Your task to perform on an android device: Search for pizza restaurants on Maps Image 0: 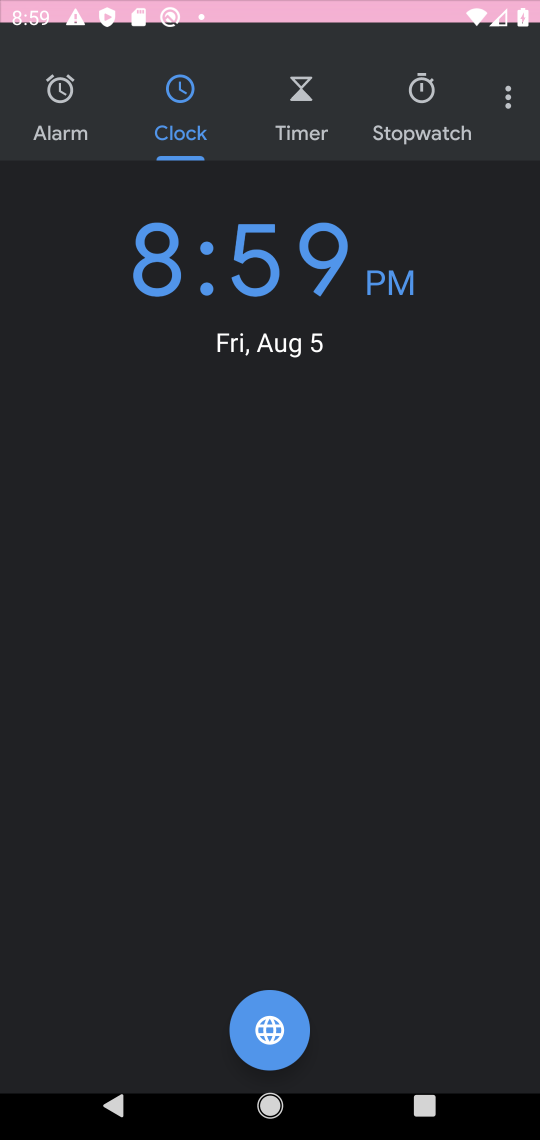
Step 0: press home button
Your task to perform on an android device: Search for pizza restaurants on Maps Image 1: 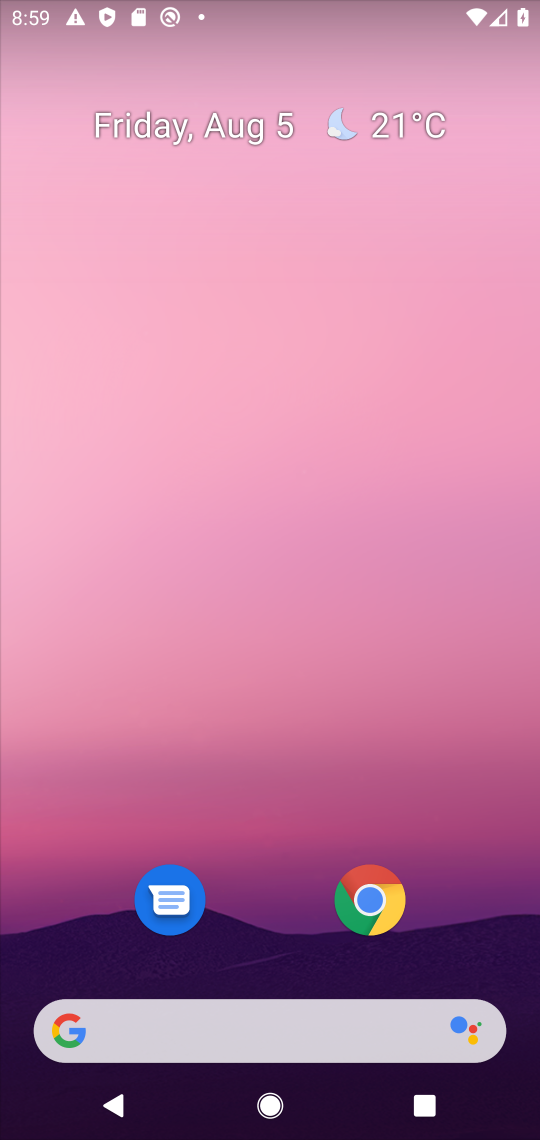
Step 1: drag from (239, 971) to (216, 391)
Your task to perform on an android device: Search for pizza restaurants on Maps Image 2: 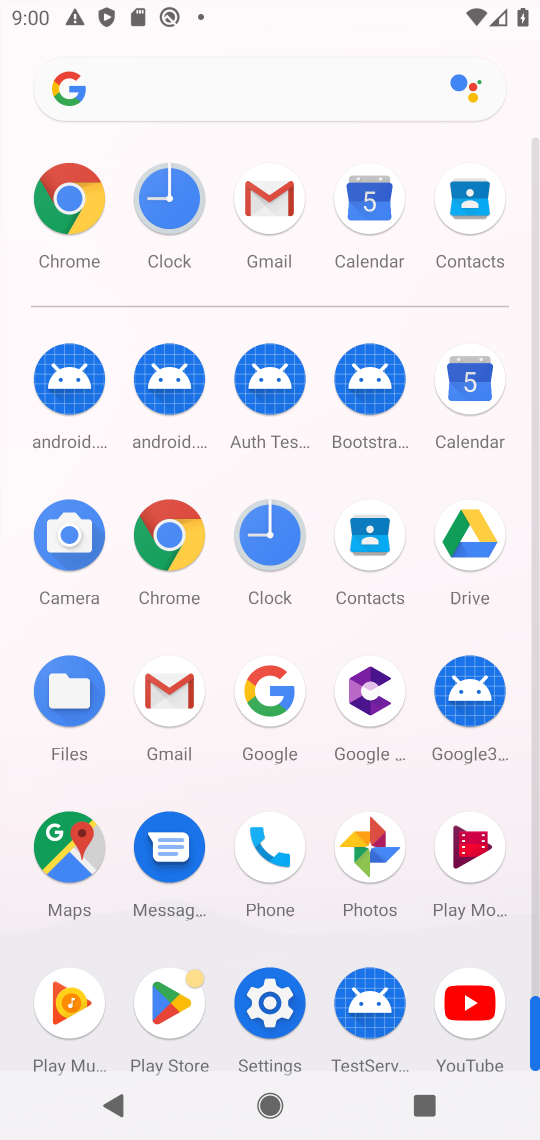
Step 2: click (73, 844)
Your task to perform on an android device: Search for pizza restaurants on Maps Image 3: 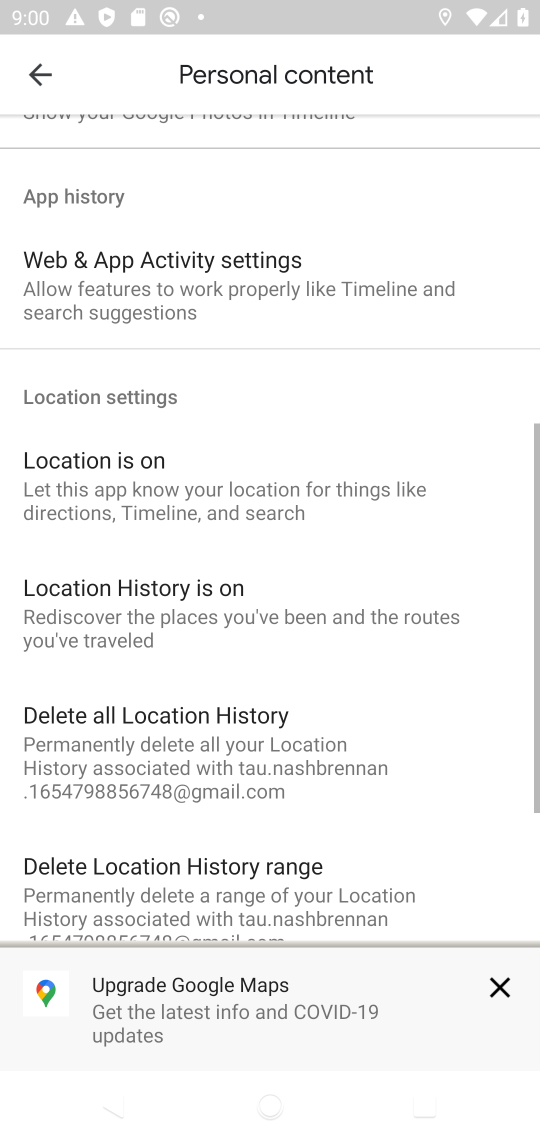
Step 3: click (45, 75)
Your task to perform on an android device: Search for pizza restaurants on Maps Image 4: 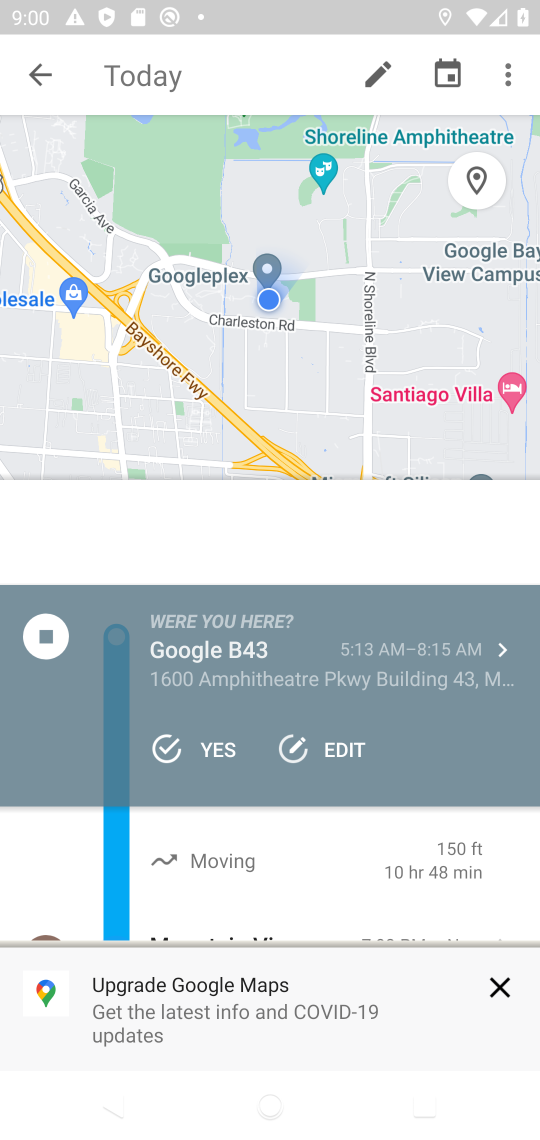
Step 4: click (45, 75)
Your task to perform on an android device: Search for pizza restaurants on Maps Image 5: 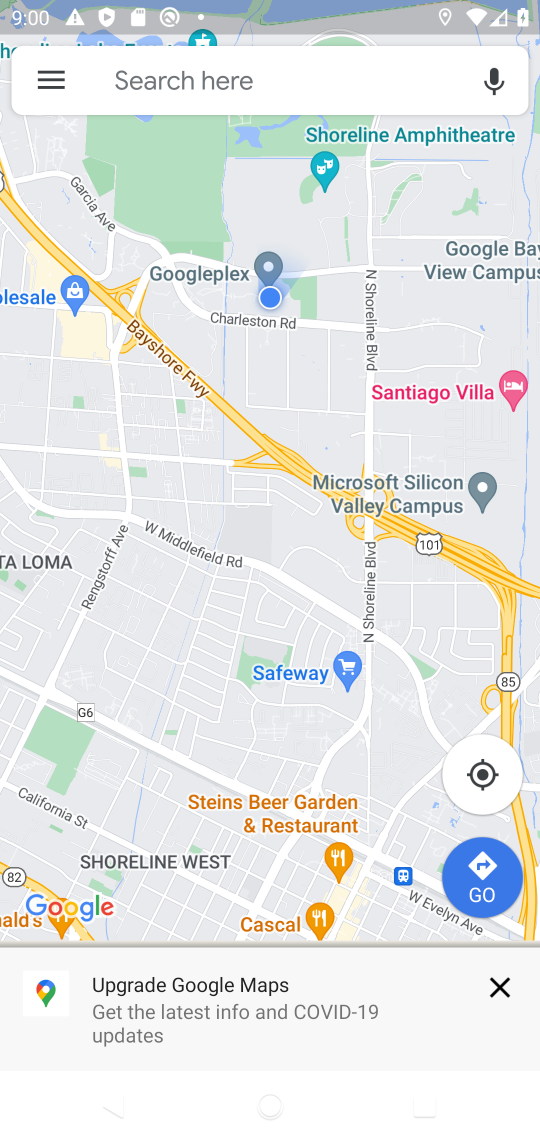
Step 5: click (276, 73)
Your task to perform on an android device: Search for pizza restaurants on Maps Image 6: 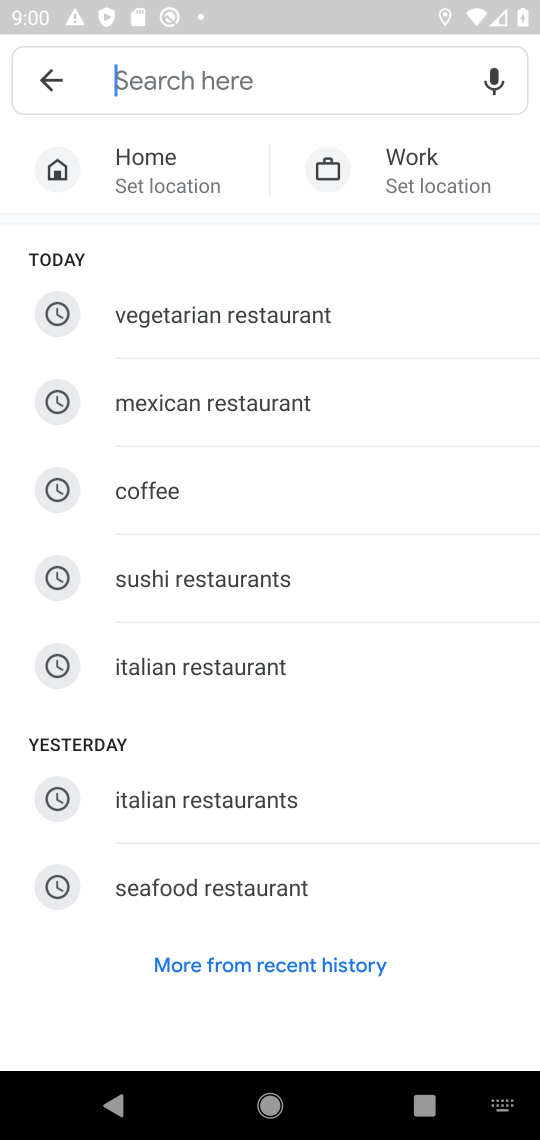
Step 6: type " pizza restaurants"
Your task to perform on an android device: Search for pizza restaurants on Maps Image 7: 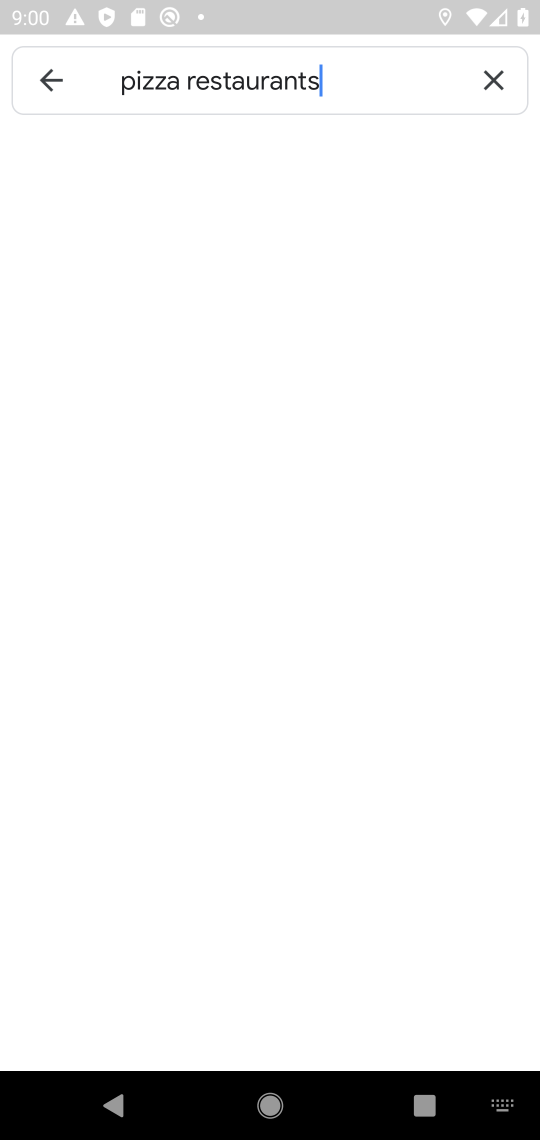
Step 7: type ""
Your task to perform on an android device: Search for pizza restaurants on Maps Image 8: 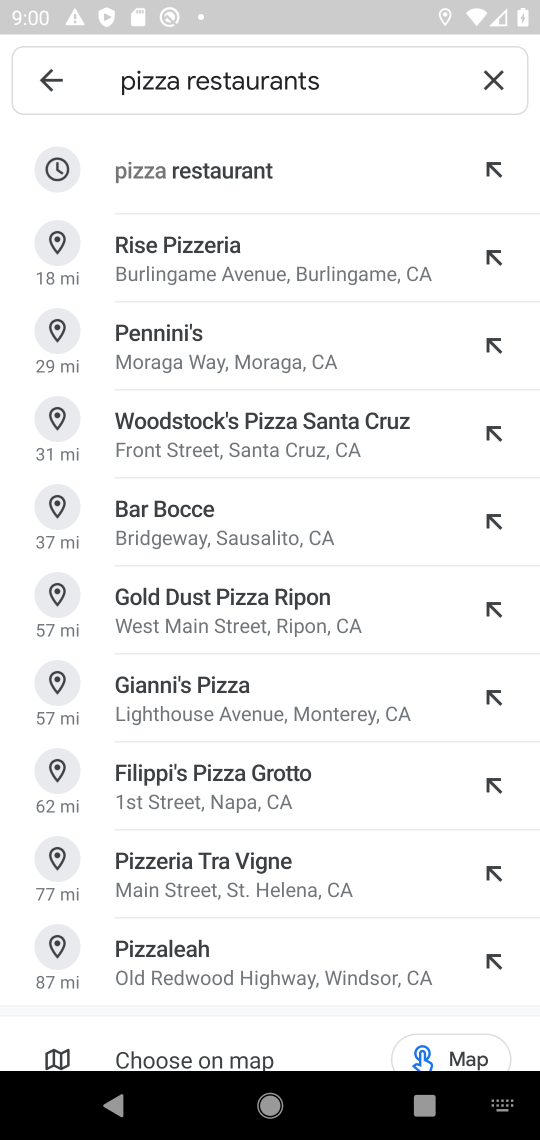
Step 8: click (162, 189)
Your task to perform on an android device: Search for pizza restaurants on Maps Image 9: 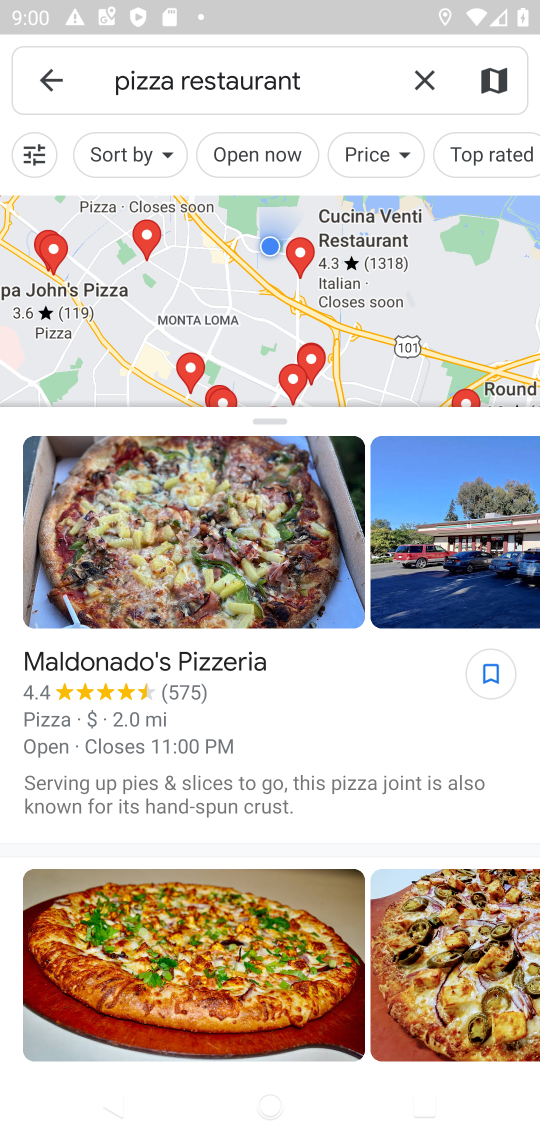
Step 9: task complete